Your task to perform on an android device: check the backup settings in the google photos Image 0: 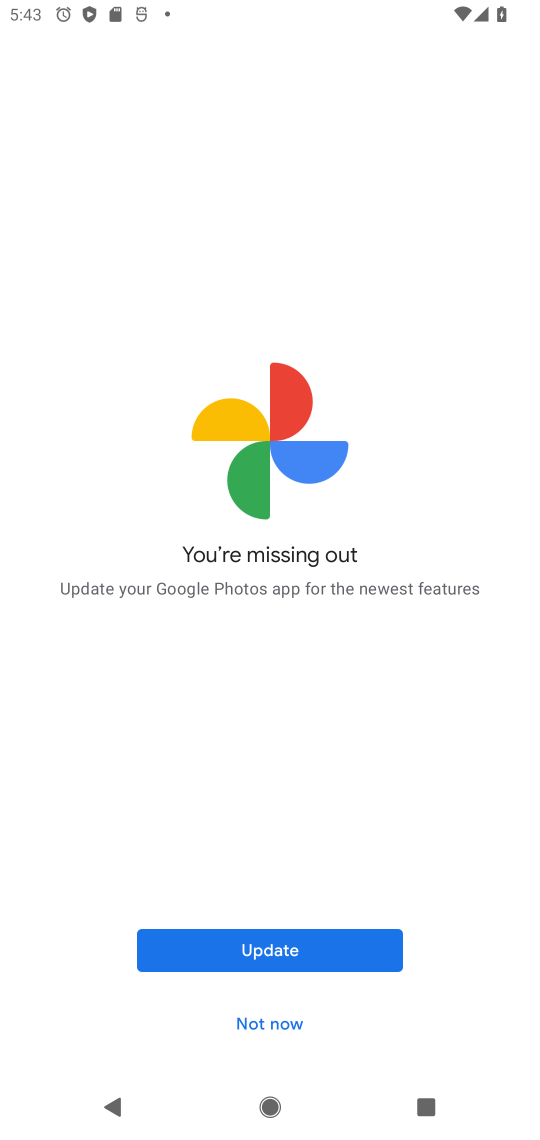
Step 0: click (290, 1017)
Your task to perform on an android device: check the backup settings in the google photos Image 1: 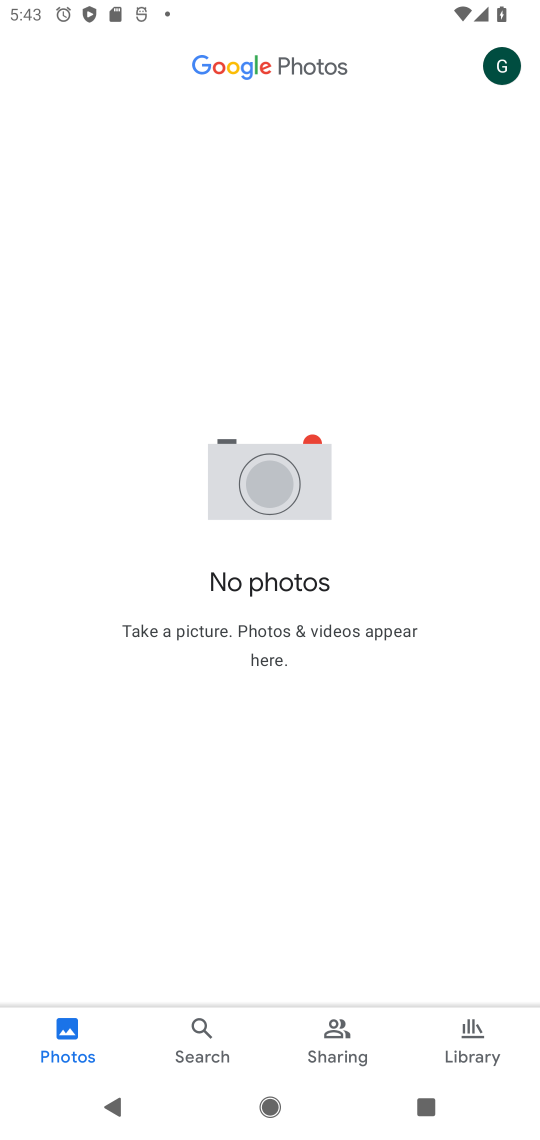
Step 1: click (505, 63)
Your task to perform on an android device: check the backup settings in the google photos Image 2: 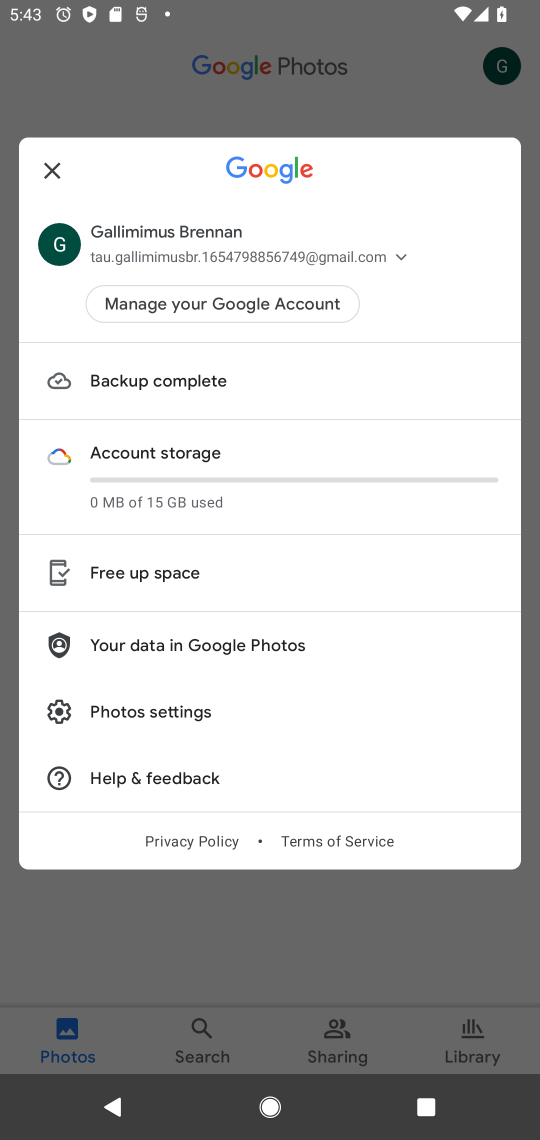
Step 2: click (144, 703)
Your task to perform on an android device: check the backup settings in the google photos Image 3: 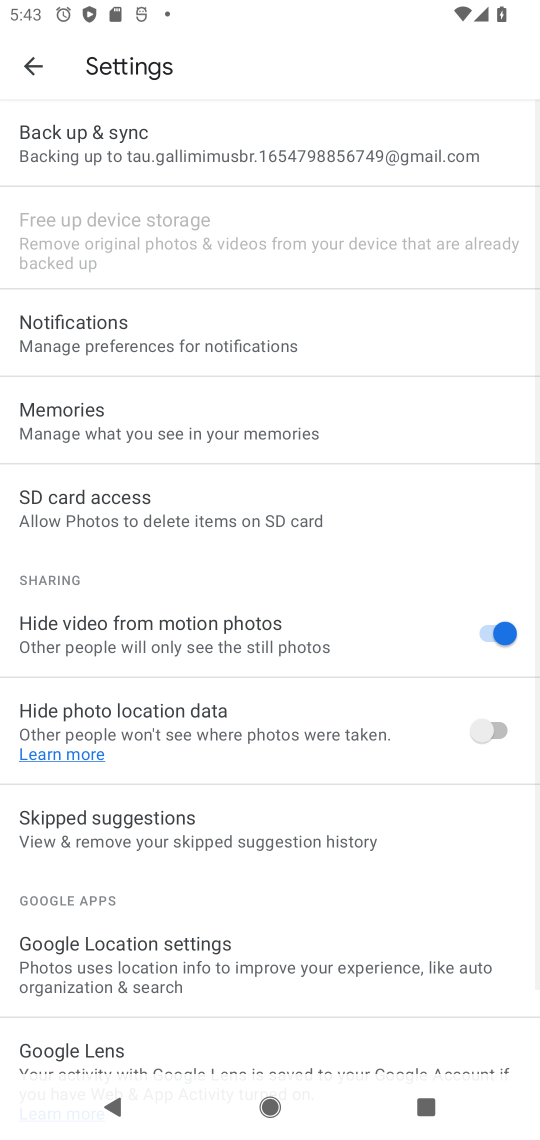
Step 3: click (190, 160)
Your task to perform on an android device: check the backup settings in the google photos Image 4: 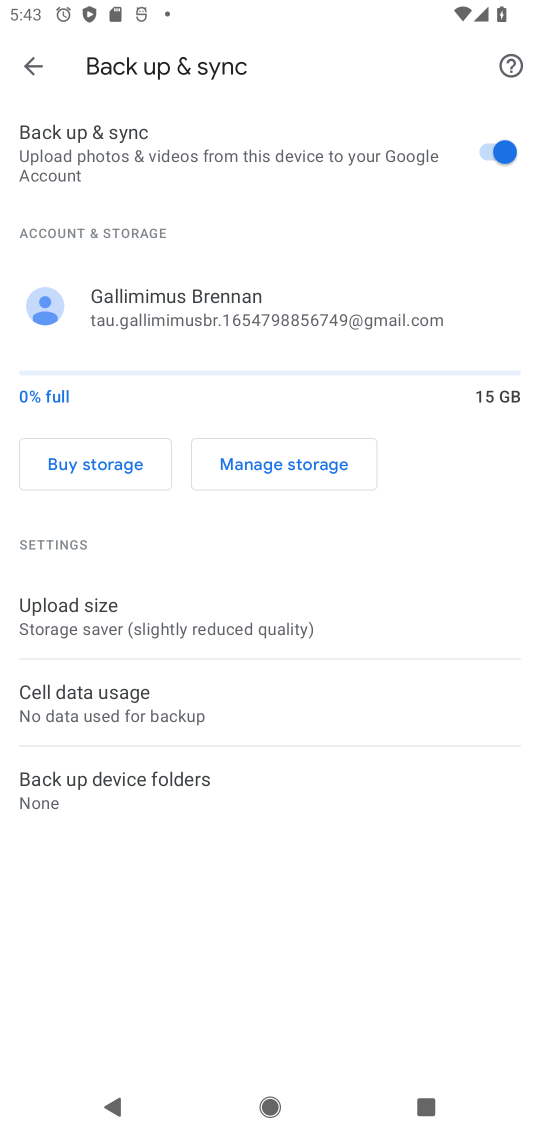
Step 4: click (61, 143)
Your task to perform on an android device: check the backup settings in the google photos Image 5: 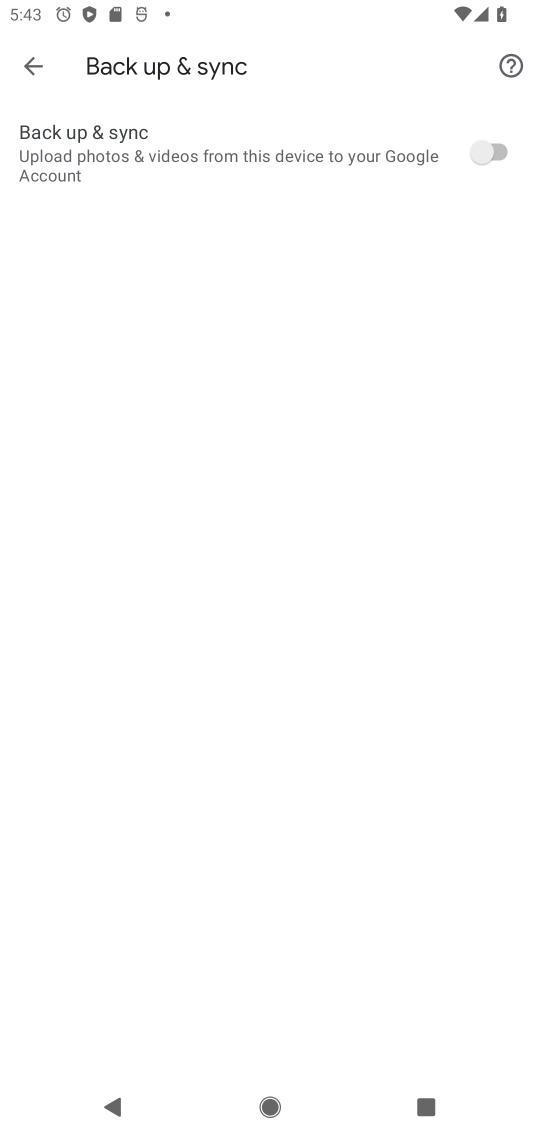
Step 5: click (486, 140)
Your task to perform on an android device: check the backup settings in the google photos Image 6: 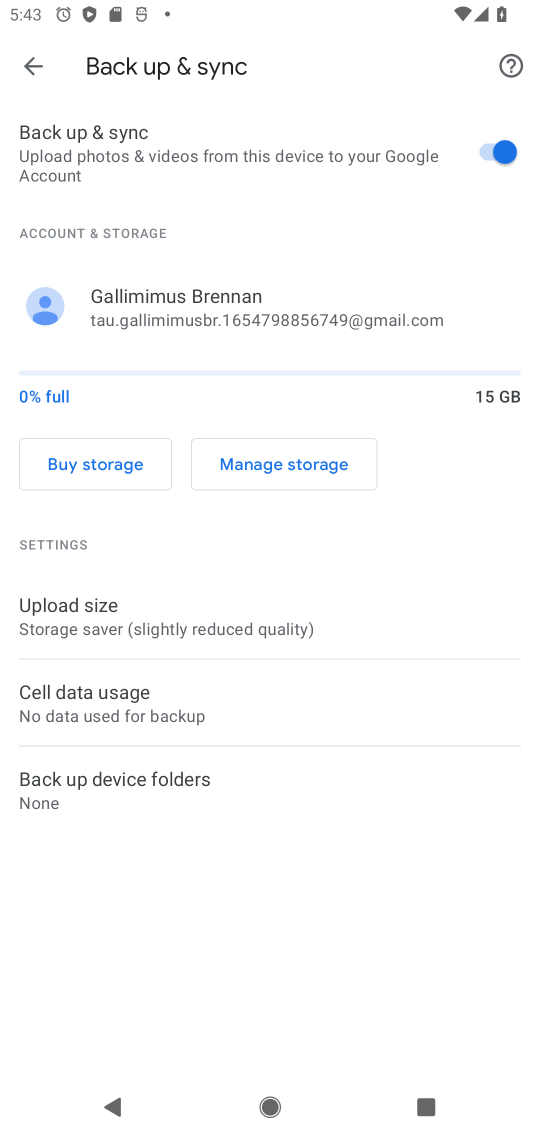
Step 6: task complete